Your task to perform on an android device: What's on my calendar tomorrow? Image 0: 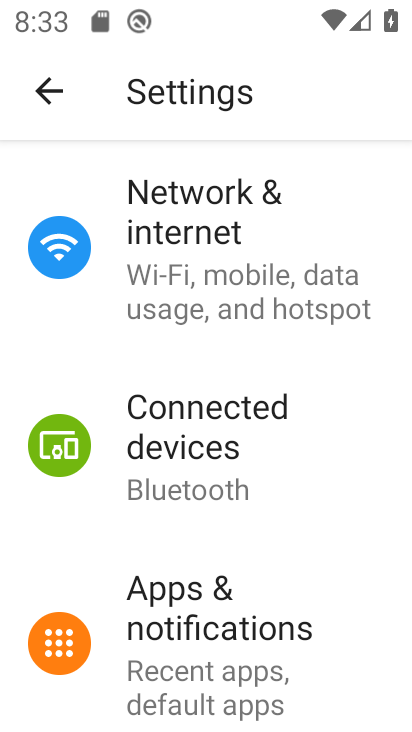
Step 0: press home button
Your task to perform on an android device: What's on my calendar tomorrow? Image 1: 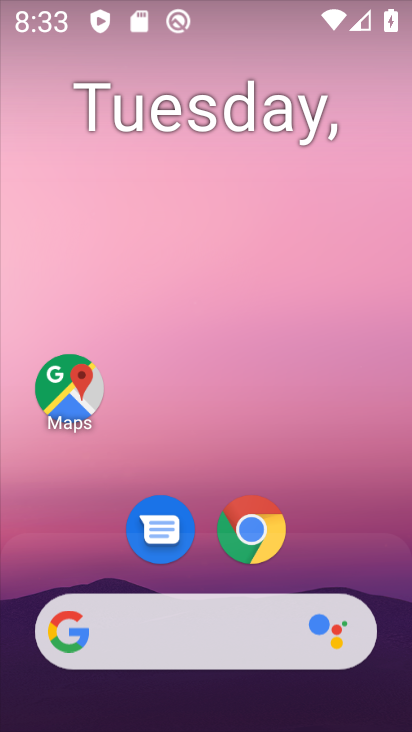
Step 1: drag from (371, 569) to (350, 108)
Your task to perform on an android device: What's on my calendar tomorrow? Image 2: 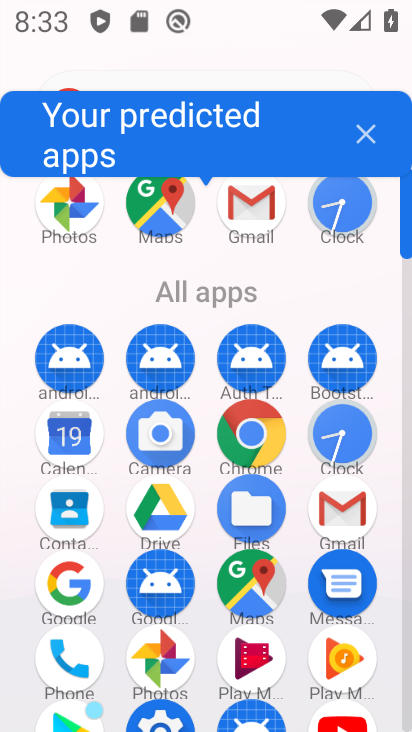
Step 2: click (408, 694)
Your task to perform on an android device: What's on my calendar tomorrow? Image 3: 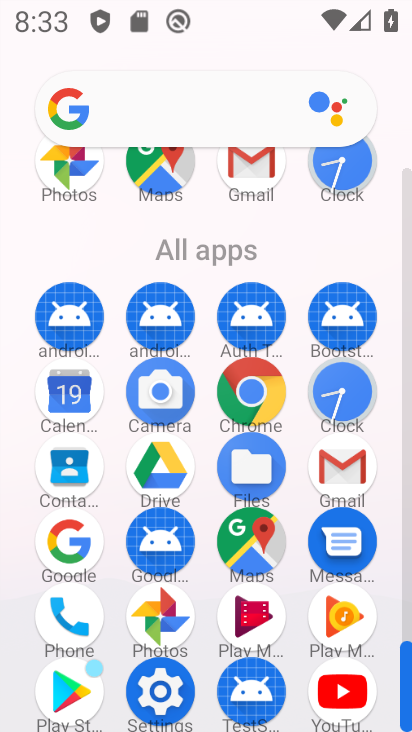
Step 3: click (69, 391)
Your task to perform on an android device: What's on my calendar tomorrow? Image 4: 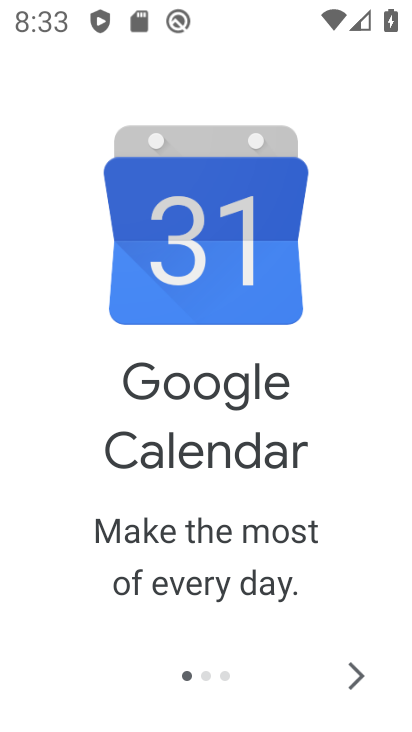
Step 4: click (352, 672)
Your task to perform on an android device: What's on my calendar tomorrow? Image 5: 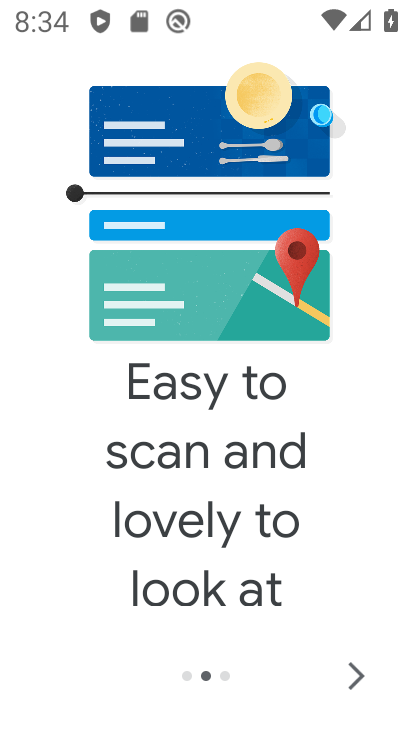
Step 5: click (352, 672)
Your task to perform on an android device: What's on my calendar tomorrow? Image 6: 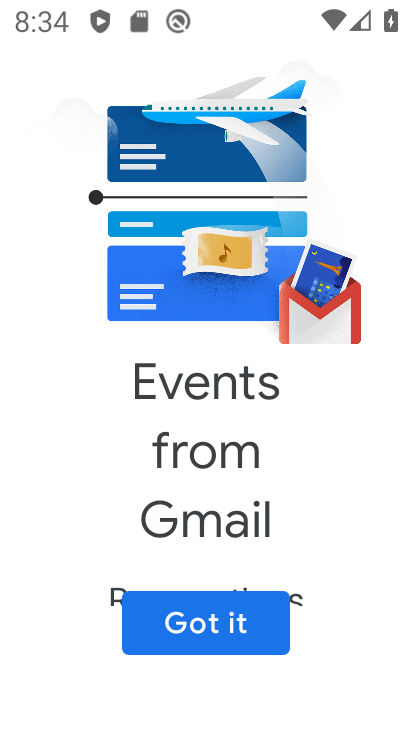
Step 6: click (201, 626)
Your task to perform on an android device: What's on my calendar tomorrow? Image 7: 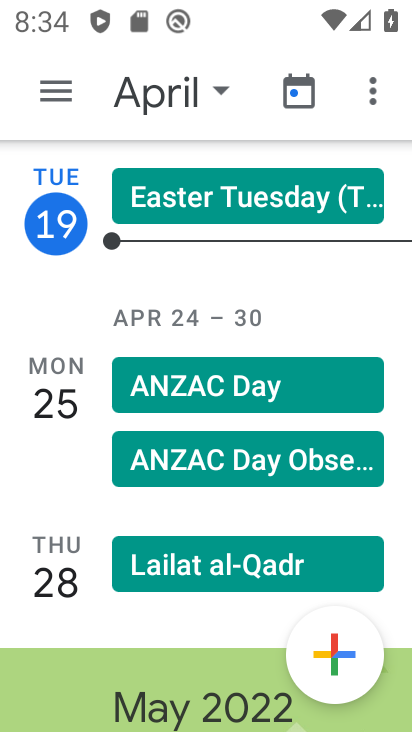
Step 7: click (222, 86)
Your task to perform on an android device: What's on my calendar tomorrow? Image 8: 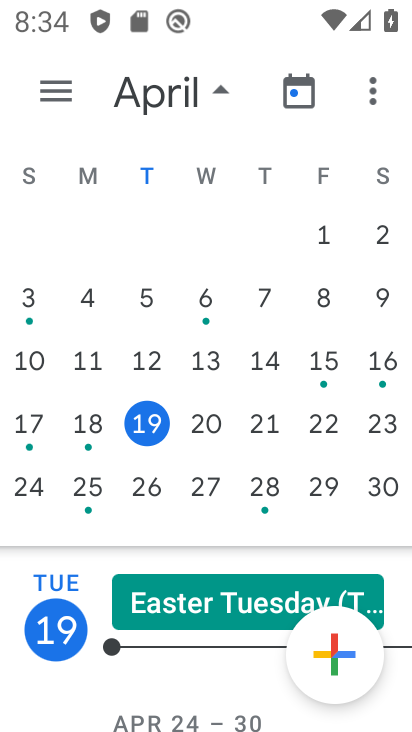
Step 8: click (206, 429)
Your task to perform on an android device: What's on my calendar tomorrow? Image 9: 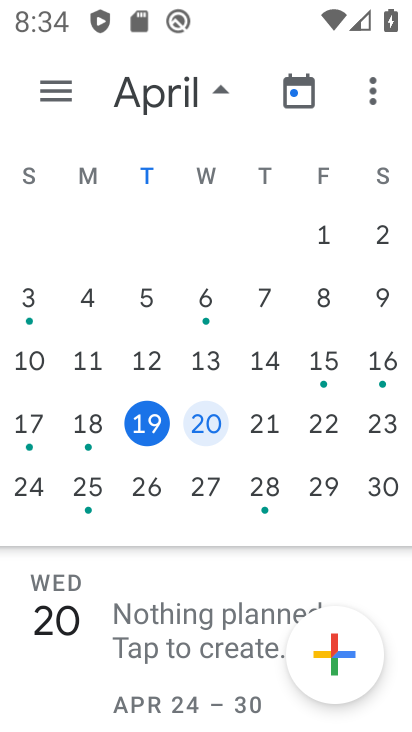
Step 9: drag from (183, 647) to (211, 224)
Your task to perform on an android device: What's on my calendar tomorrow? Image 10: 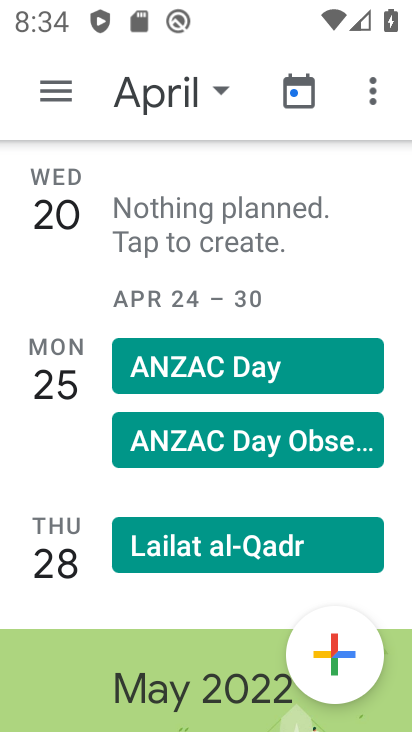
Step 10: drag from (159, 278) to (142, 573)
Your task to perform on an android device: What's on my calendar tomorrow? Image 11: 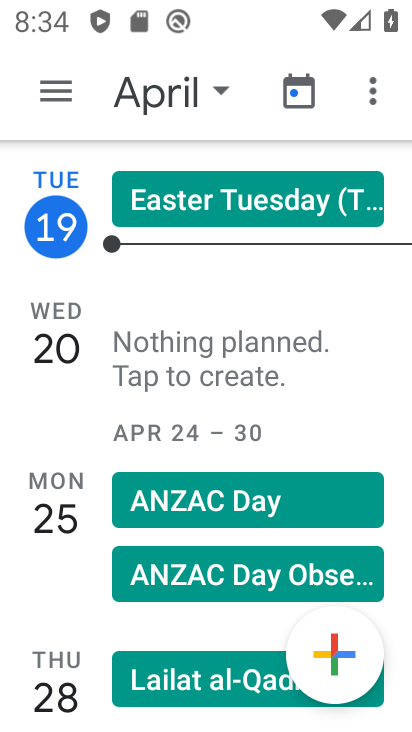
Step 11: click (43, 102)
Your task to perform on an android device: What's on my calendar tomorrow? Image 12: 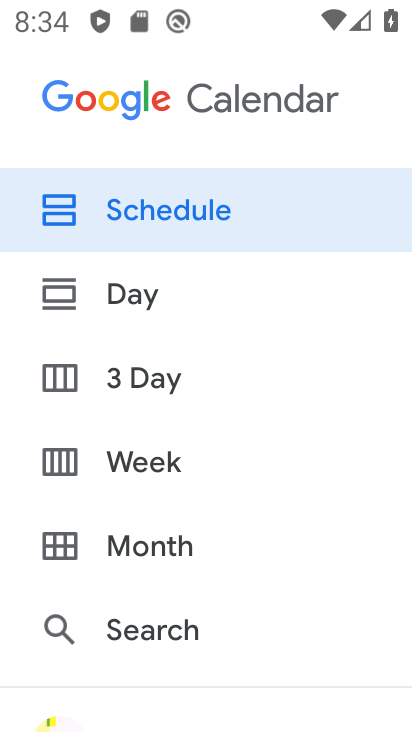
Step 12: click (131, 294)
Your task to perform on an android device: What's on my calendar tomorrow? Image 13: 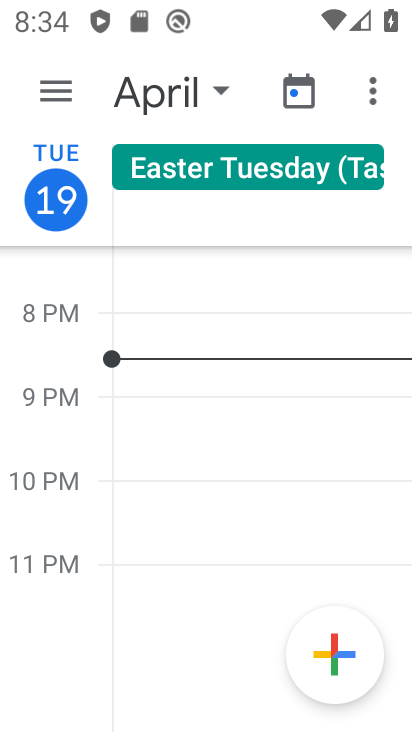
Step 13: drag from (222, 345) to (193, 634)
Your task to perform on an android device: What's on my calendar tomorrow? Image 14: 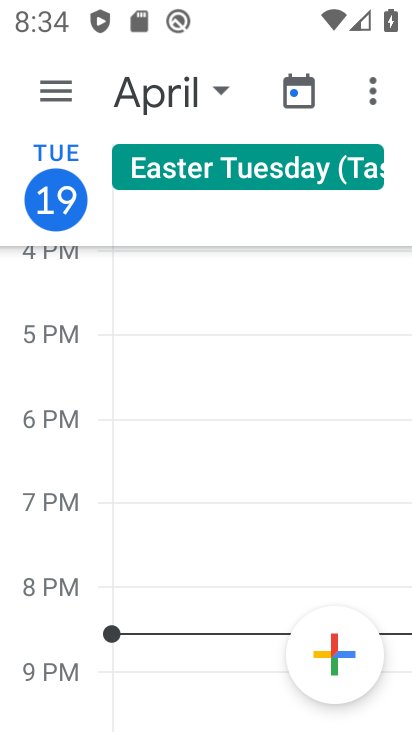
Step 14: drag from (260, 326) to (227, 638)
Your task to perform on an android device: What's on my calendar tomorrow? Image 15: 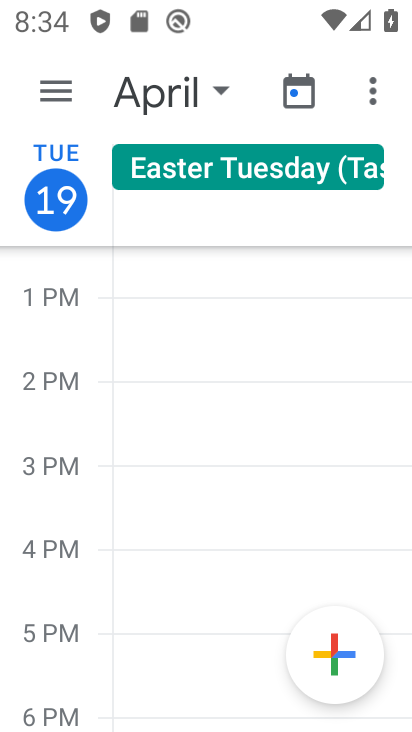
Step 15: click (215, 83)
Your task to perform on an android device: What's on my calendar tomorrow? Image 16: 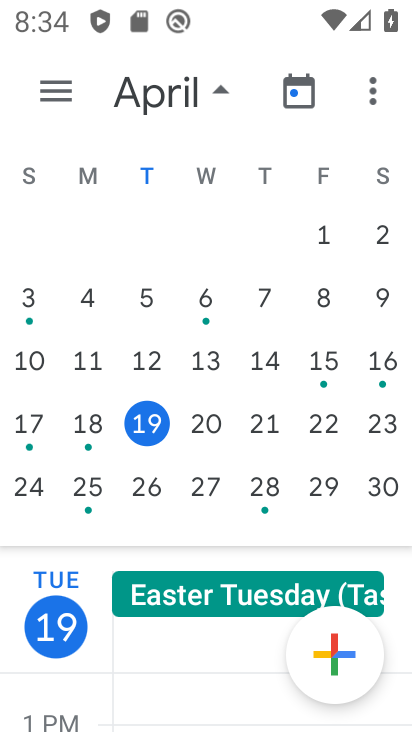
Step 16: click (206, 421)
Your task to perform on an android device: What's on my calendar tomorrow? Image 17: 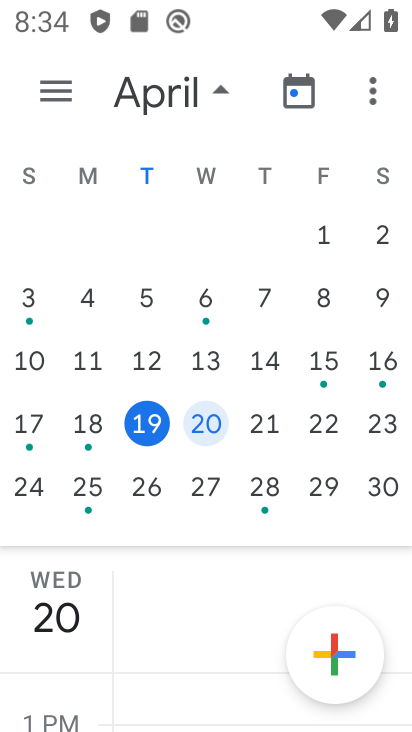
Step 17: task complete